Your task to perform on an android device: turn notification dots on Image 0: 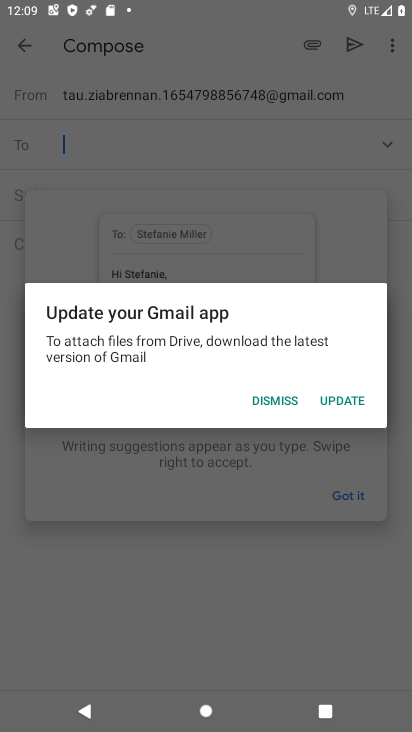
Step 0: press home button
Your task to perform on an android device: turn notification dots on Image 1: 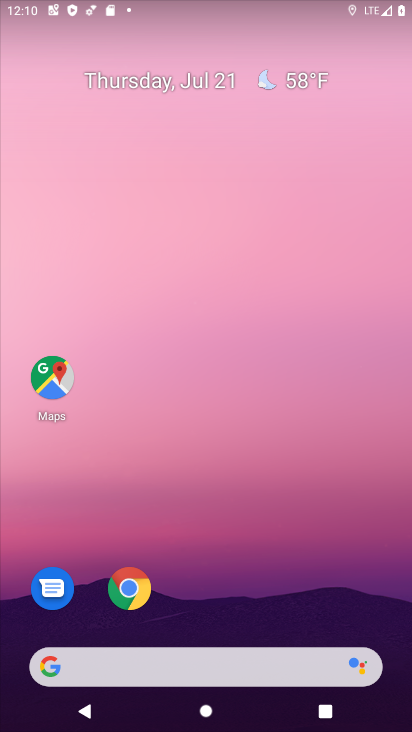
Step 1: drag from (270, 625) to (142, 0)
Your task to perform on an android device: turn notification dots on Image 2: 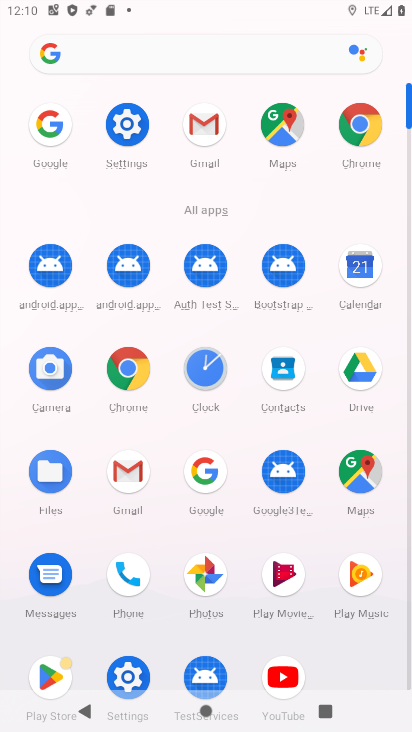
Step 2: click (126, 134)
Your task to perform on an android device: turn notification dots on Image 3: 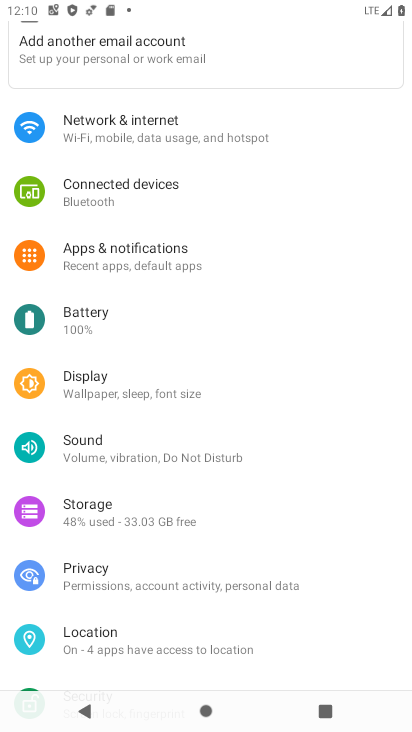
Step 3: click (154, 263)
Your task to perform on an android device: turn notification dots on Image 4: 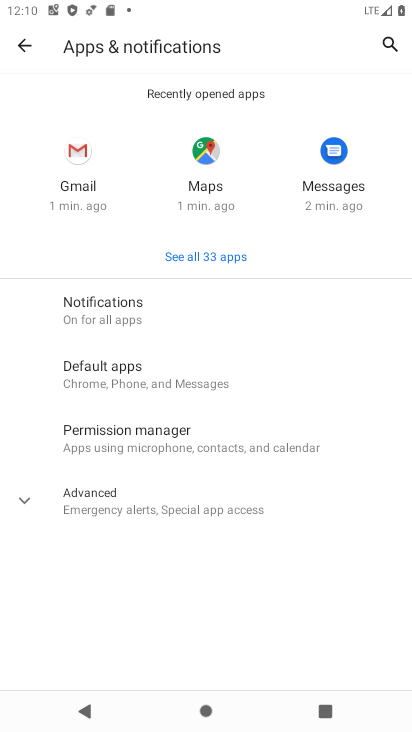
Step 4: click (138, 312)
Your task to perform on an android device: turn notification dots on Image 5: 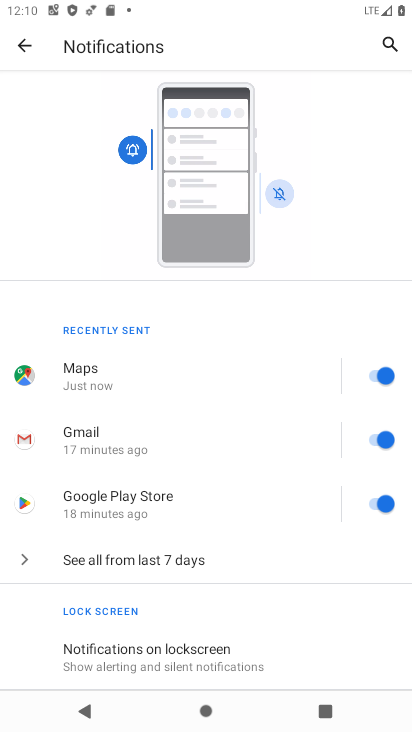
Step 5: drag from (138, 597) to (182, 194)
Your task to perform on an android device: turn notification dots on Image 6: 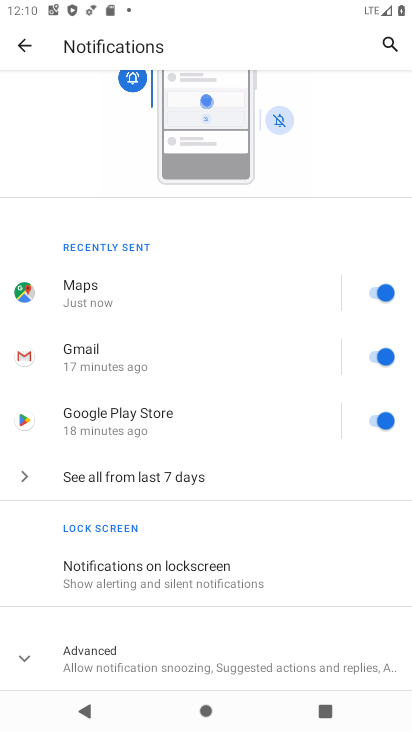
Step 6: click (235, 654)
Your task to perform on an android device: turn notification dots on Image 7: 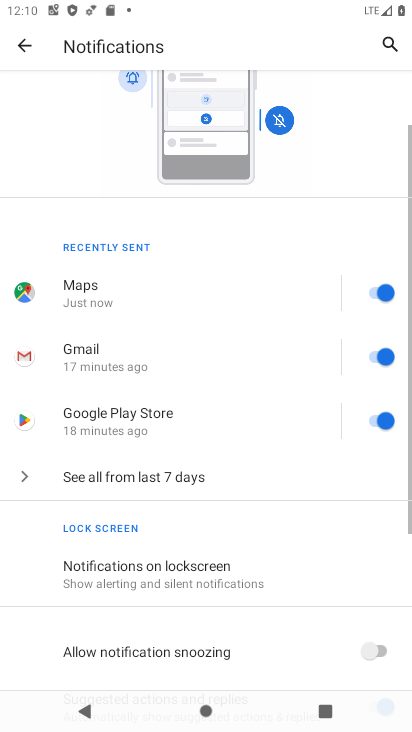
Step 7: task complete